Your task to perform on an android device: When is my next meeting? Image 0: 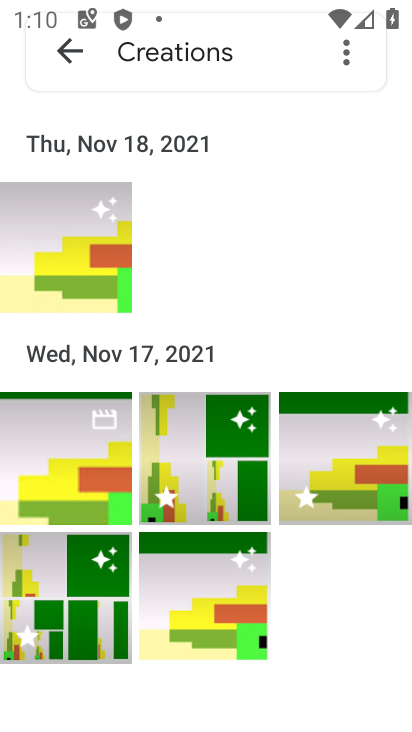
Step 0: press home button
Your task to perform on an android device: When is my next meeting? Image 1: 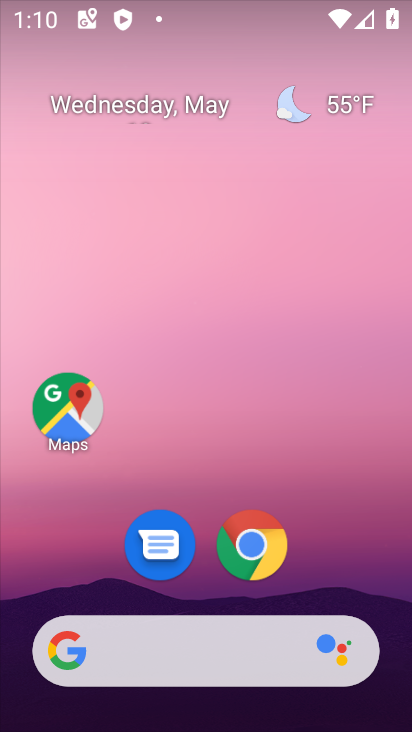
Step 1: drag from (306, 506) to (276, 62)
Your task to perform on an android device: When is my next meeting? Image 2: 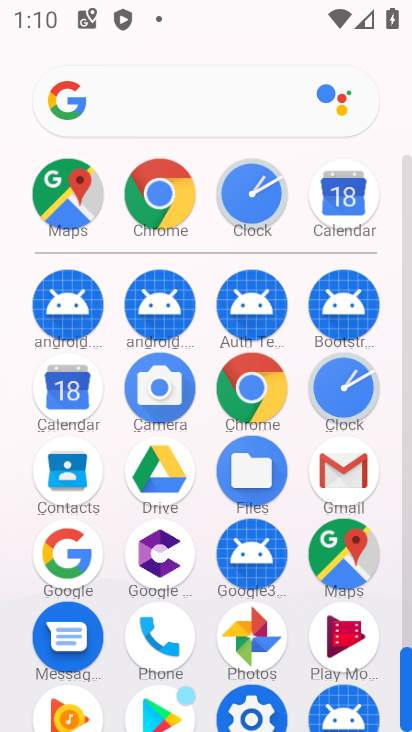
Step 2: click (55, 388)
Your task to perform on an android device: When is my next meeting? Image 3: 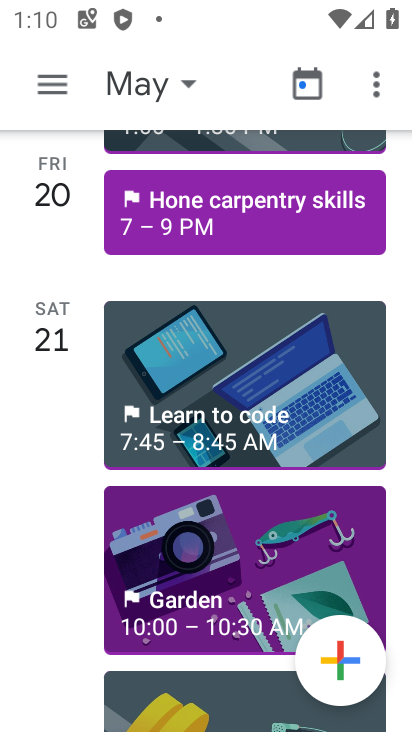
Step 3: task complete